Your task to perform on an android device: check the backup settings in the google photos Image 0: 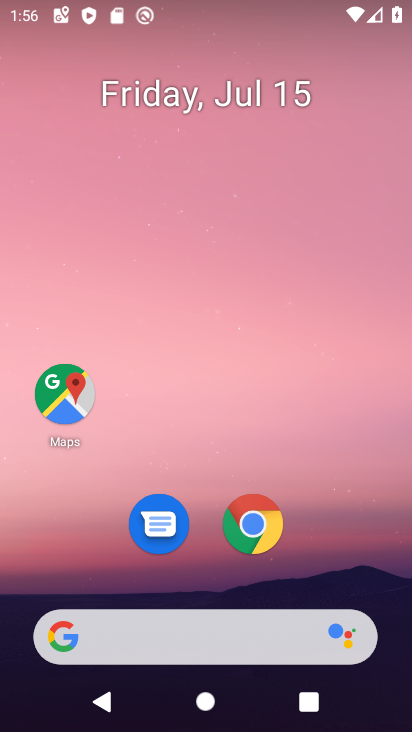
Step 0: press home button
Your task to perform on an android device: check the backup settings in the google photos Image 1: 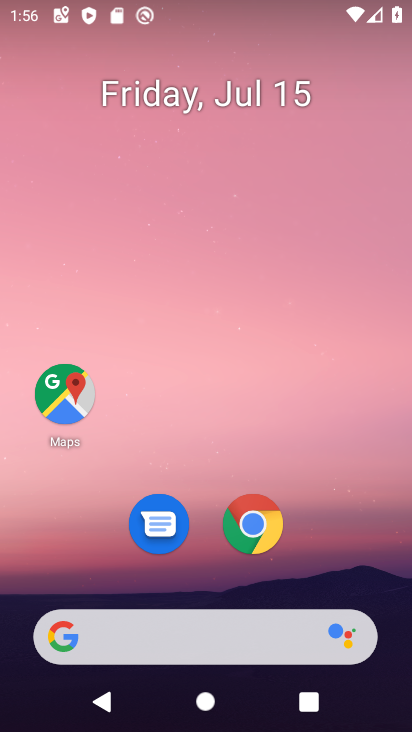
Step 1: drag from (212, 643) to (252, 232)
Your task to perform on an android device: check the backup settings in the google photos Image 2: 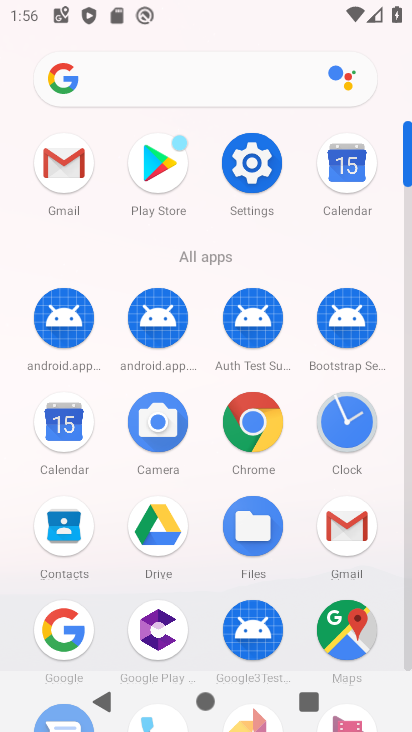
Step 2: drag from (200, 586) to (227, 218)
Your task to perform on an android device: check the backup settings in the google photos Image 3: 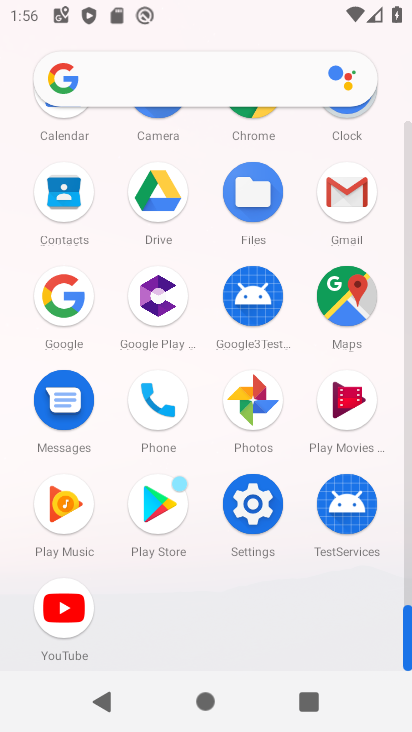
Step 3: click (247, 402)
Your task to perform on an android device: check the backup settings in the google photos Image 4: 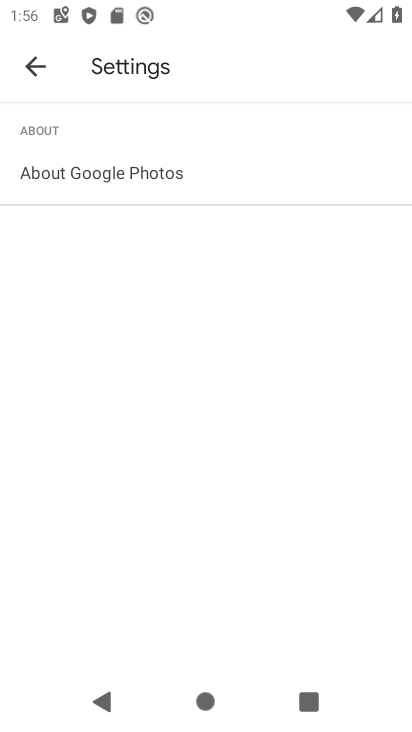
Step 4: click (32, 63)
Your task to perform on an android device: check the backup settings in the google photos Image 5: 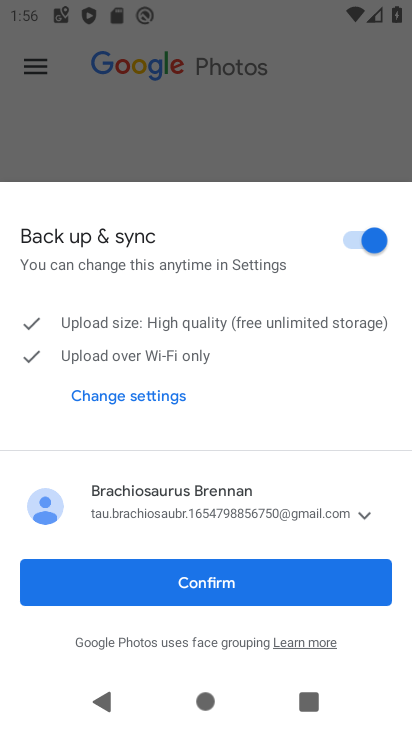
Step 5: click (205, 584)
Your task to perform on an android device: check the backup settings in the google photos Image 6: 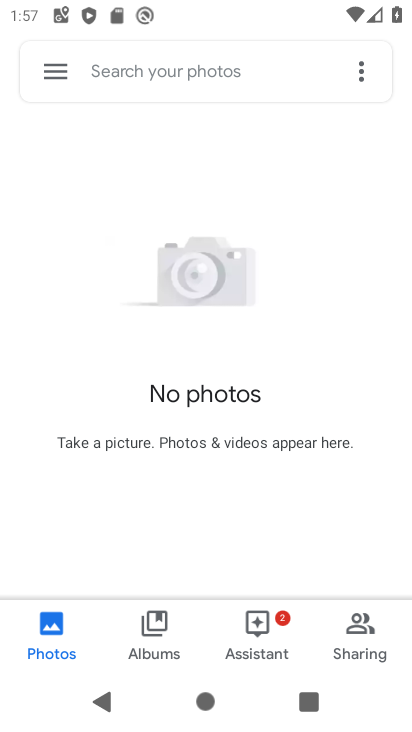
Step 6: click (60, 69)
Your task to perform on an android device: check the backup settings in the google photos Image 7: 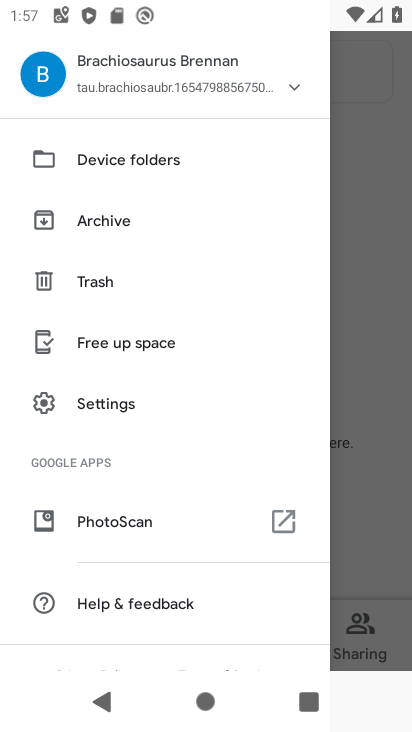
Step 7: click (134, 401)
Your task to perform on an android device: check the backup settings in the google photos Image 8: 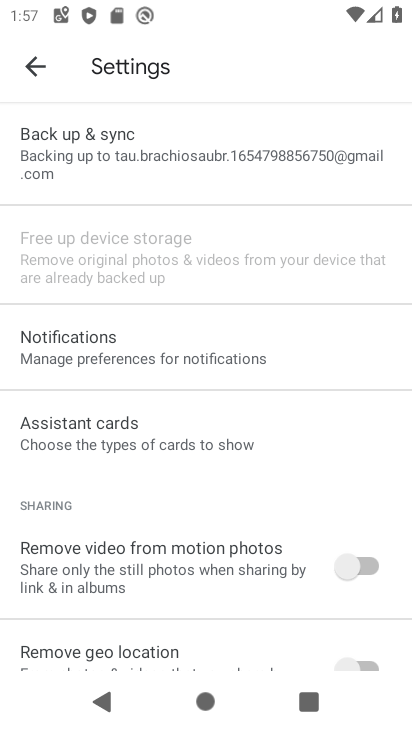
Step 8: click (137, 182)
Your task to perform on an android device: check the backup settings in the google photos Image 9: 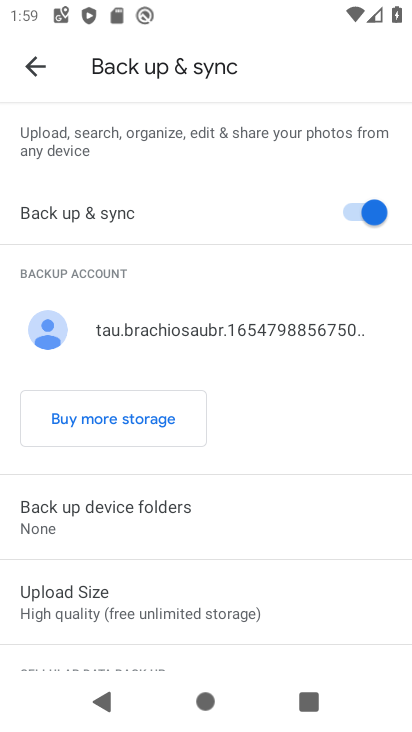
Step 9: task complete